Your task to perform on an android device: Open notification settings Image 0: 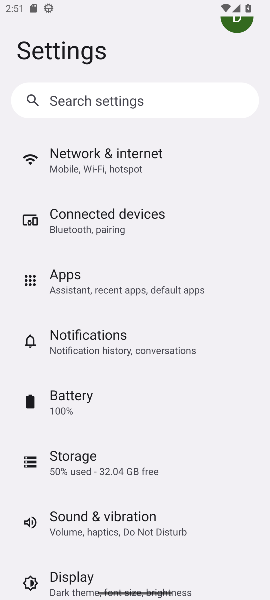
Step 0: click (138, 339)
Your task to perform on an android device: Open notification settings Image 1: 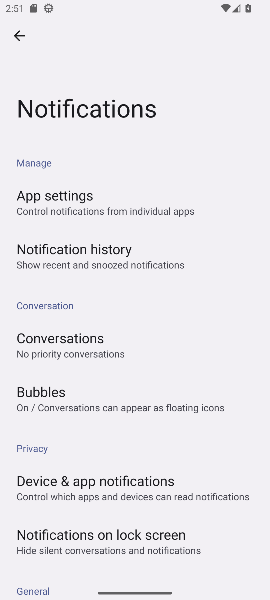
Step 1: task complete